Your task to perform on an android device: set the timer Image 0: 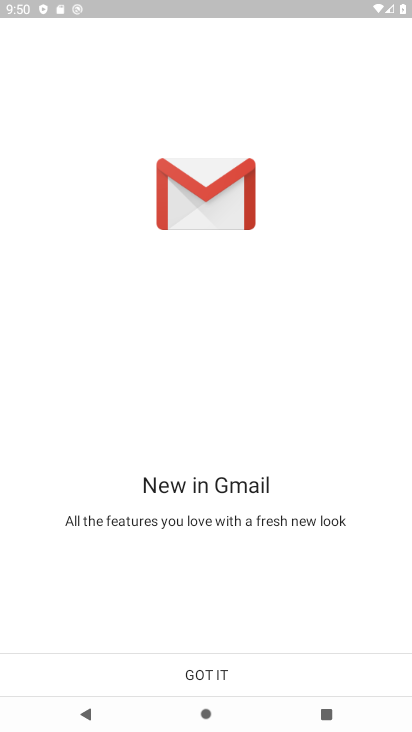
Step 0: press home button
Your task to perform on an android device: set the timer Image 1: 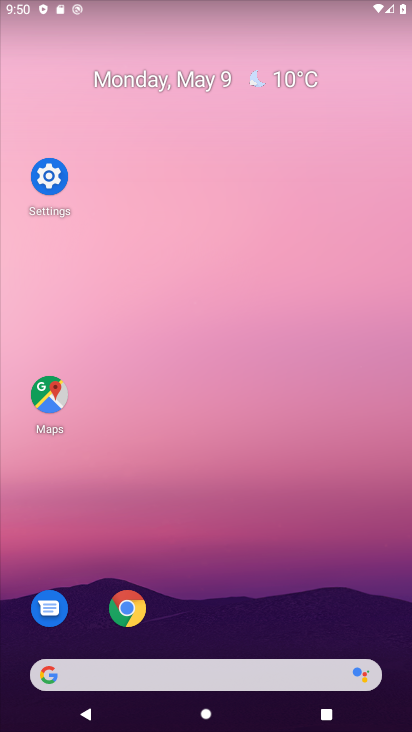
Step 1: drag from (271, 630) to (409, 214)
Your task to perform on an android device: set the timer Image 2: 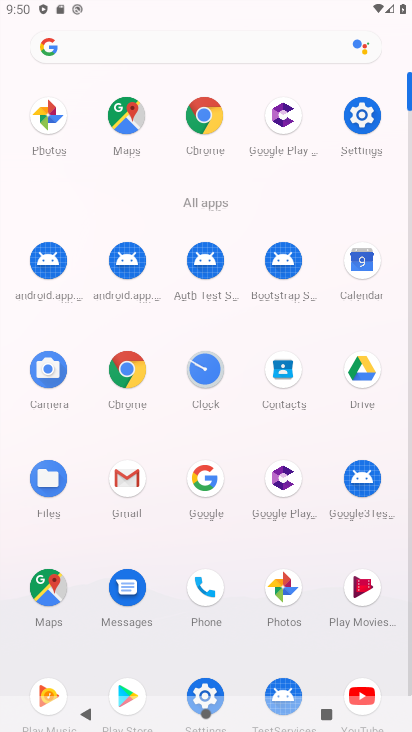
Step 2: drag from (210, 542) to (74, 301)
Your task to perform on an android device: set the timer Image 3: 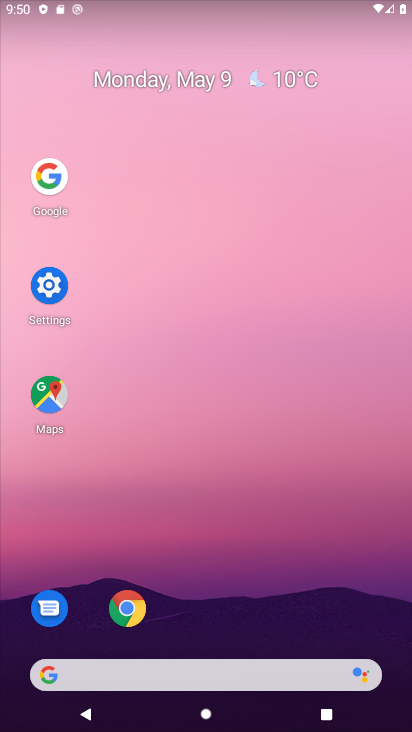
Step 3: drag from (249, 634) to (336, 211)
Your task to perform on an android device: set the timer Image 4: 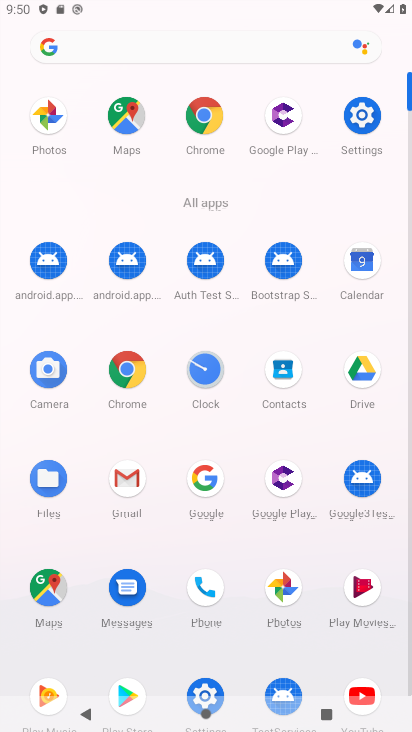
Step 4: drag from (238, 535) to (316, 69)
Your task to perform on an android device: set the timer Image 5: 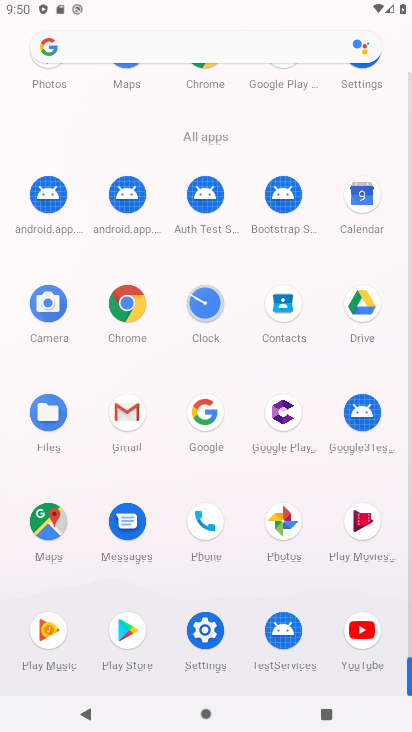
Step 5: drag from (250, 565) to (334, 178)
Your task to perform on an android device: set the timer Image 6: 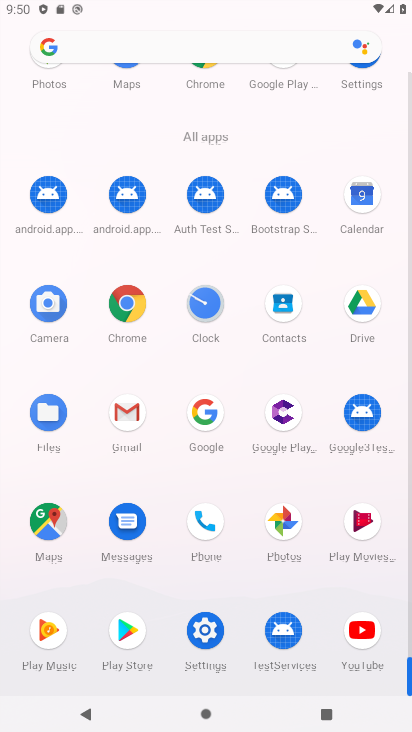
Step 6: drag from (239, 243) to (105, 646)
Your task to perform on an android device: set the timer Image 7: 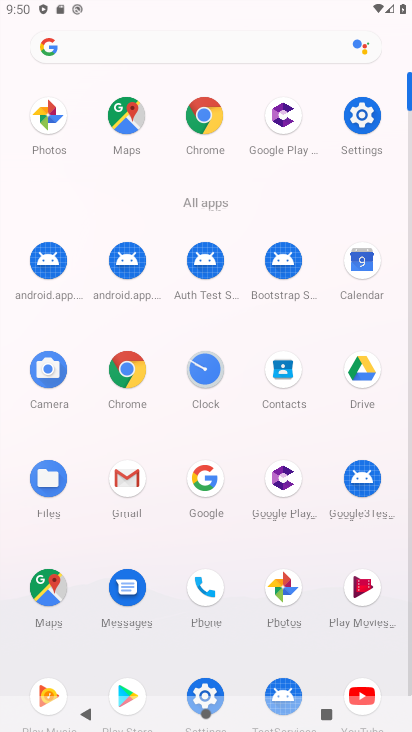
Step 7: drag from (180, 514) to (307, 173)
Your task to perform on an android device: set the timer Image 8: 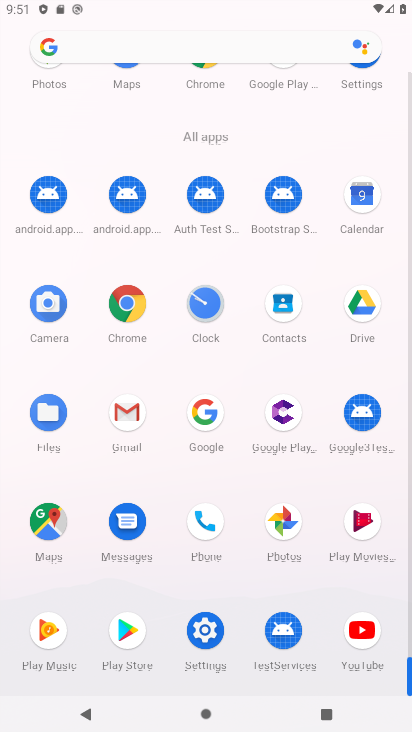
Step 8: drag from (256, 618) to (351, 241)
Your task to perform on an android device: set the timer Image 9: 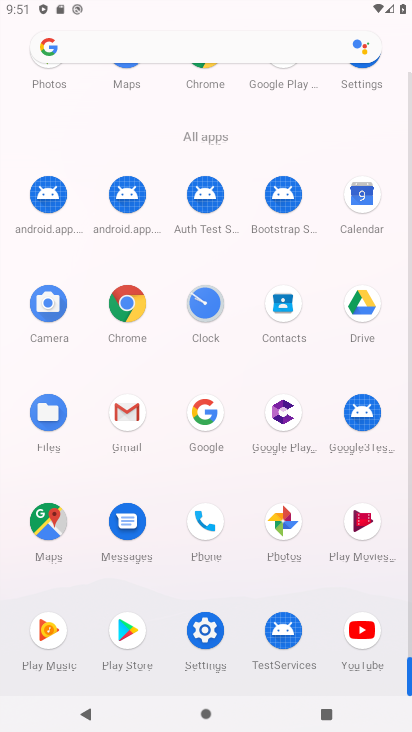
Step 9: drag from (262, 225) to (169, 644)
Your task to perform on an android device: set the timer Image 10: 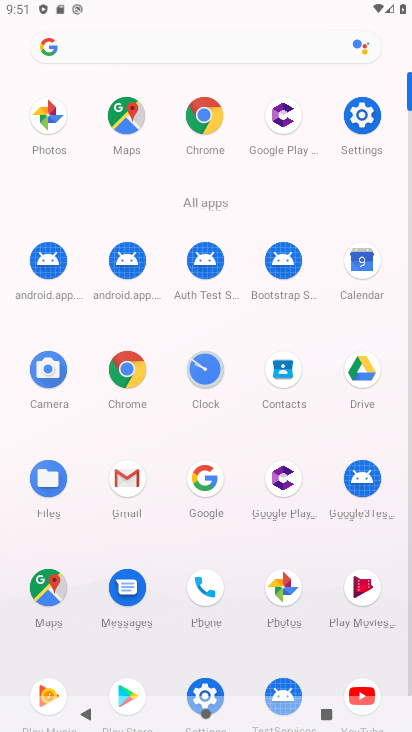
Step 10: drag from (208, 363) to (104, 290)
Your task to perform on an android device: set the timer Image 11: 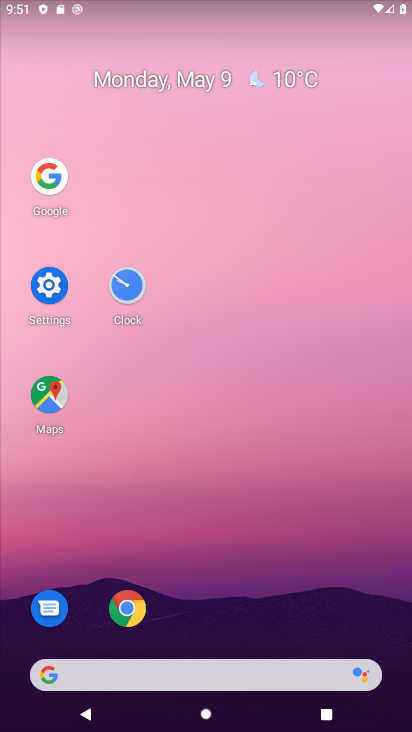
Step 11: click (133, 288)
Your task to perform on an android device: set the timer Image 12: 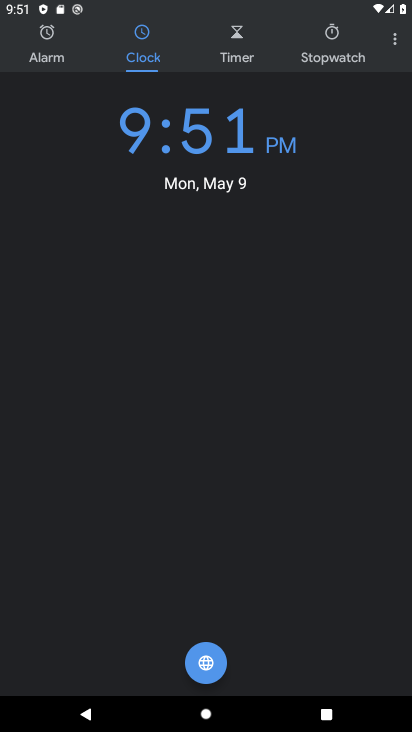
Step 12: click (135, 56)
Your task to perform on an android device: set the timer Image 13: 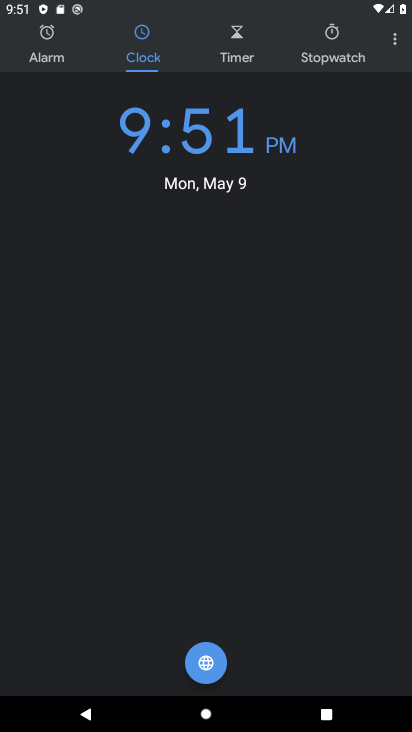
Step 13: click (156, 44)
Your task to perform on an android device: set the timer Image 14: 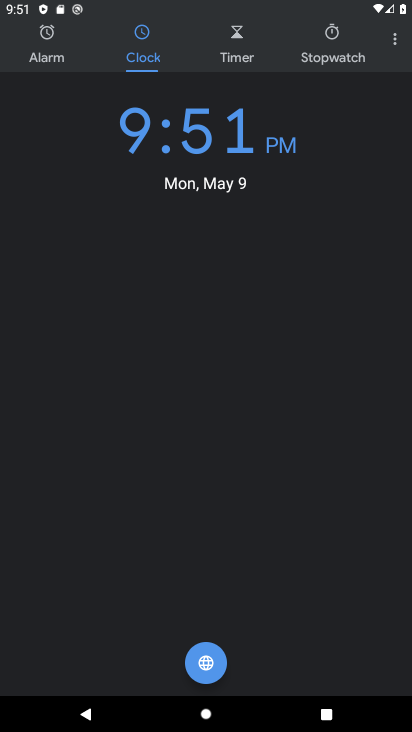
Step 14: click (216, 56)
Your task to perform on an android device: set the timer Image 15: 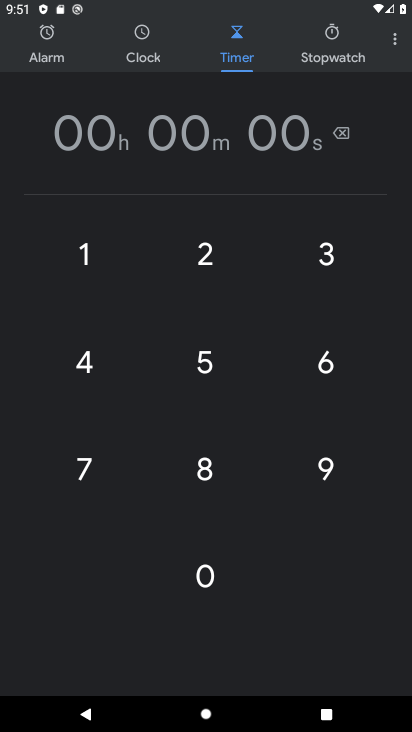
Step 15: click (208, 294)
Your task to perform on an android device: set the timer Image 16: 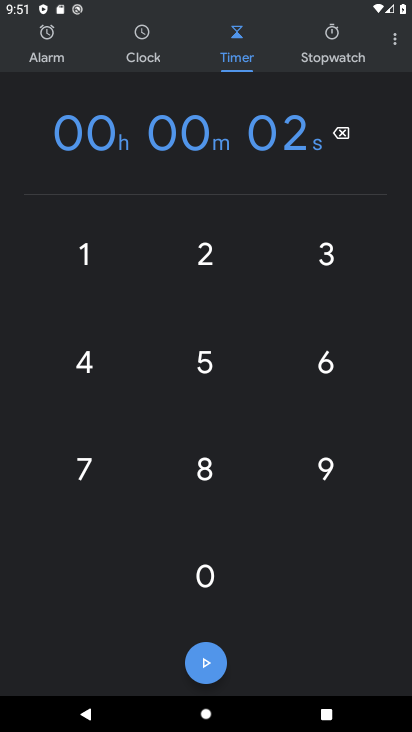
Step 16: click (186, 351)
Your task to perform on an android device: set the timer Image 17: 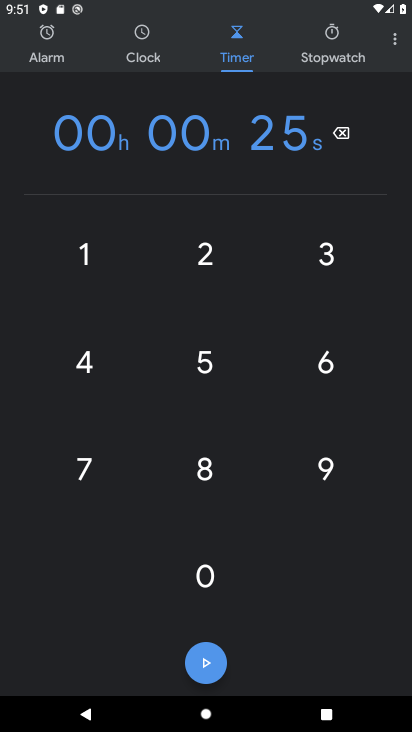
Step 17: click (208, 657)
Your task to perform on an android device: set the timer Image 18: 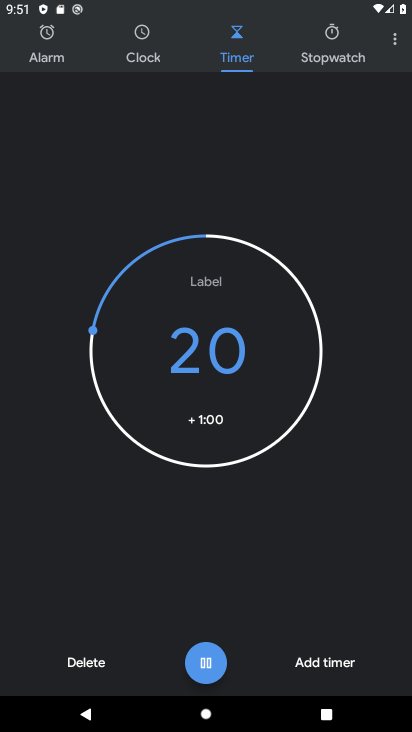
Step 18: task complete